Your task to perform on an android device: see creations saved in the google photos Image 0: 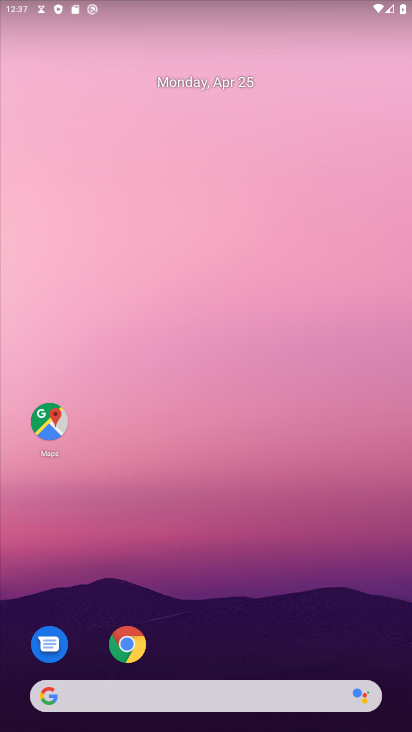
Step 0: drag from (386, 640) to (379, 36)
Your task to perform on an android device: see creations saved in the google photos Image 1: 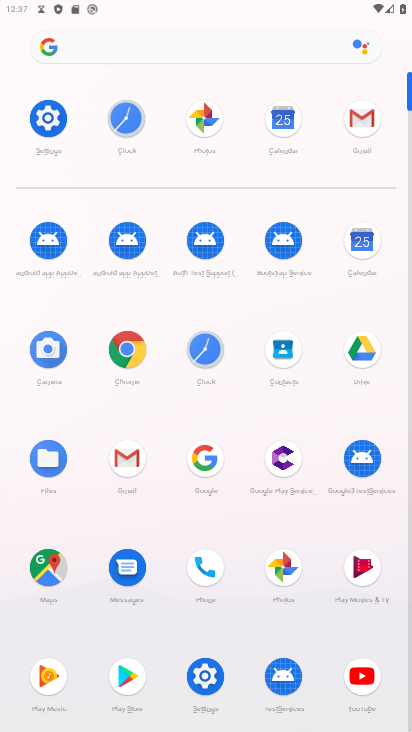
Step 1: click (205, 120)
Your task to perform on an android device: see creations saved in the google photos Image 2: 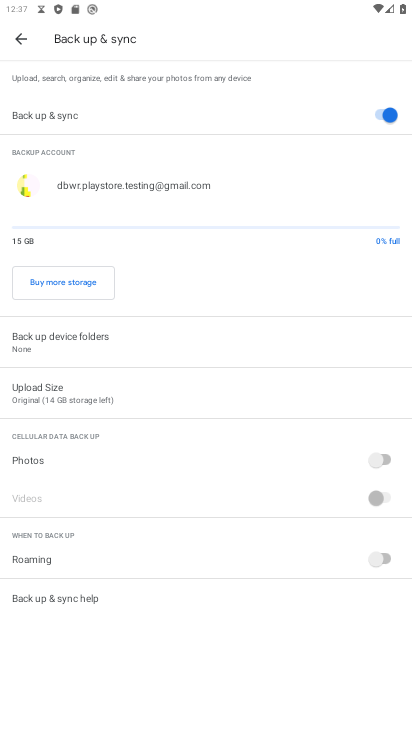
Step 2: click (22, 39)
Your task to perform on an android device: see creations saved in the google photos Image 3: 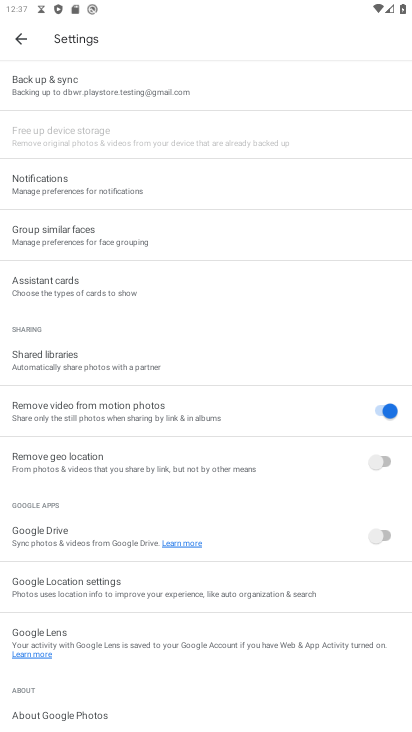
Step 3: click (19, 41)
Your task to perform on an android device: see creations saved in the google photos Image 4: 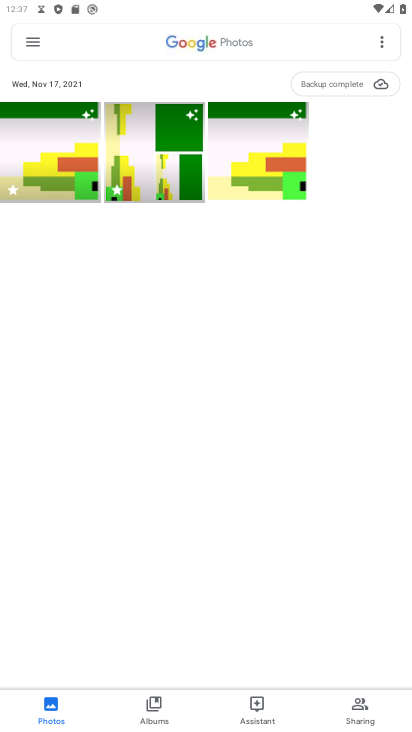
Step 4: click (151, 45)
Your task to perform on an android device: see creations saved in the google photos Image 5: 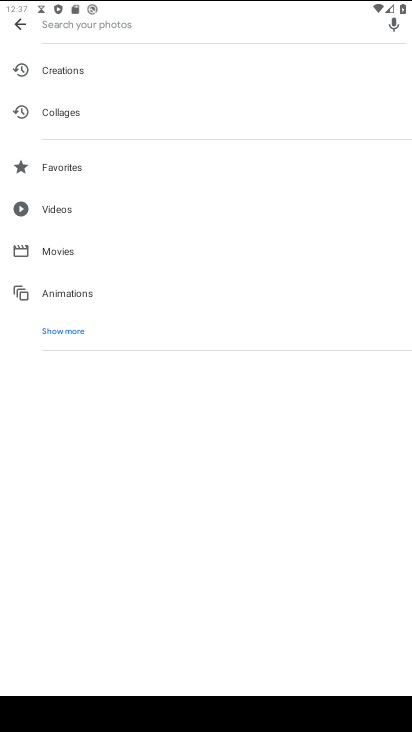
Step 5: click (56, 75)
Your task to perform on an android device: see creations saved in the google photos Image 6: 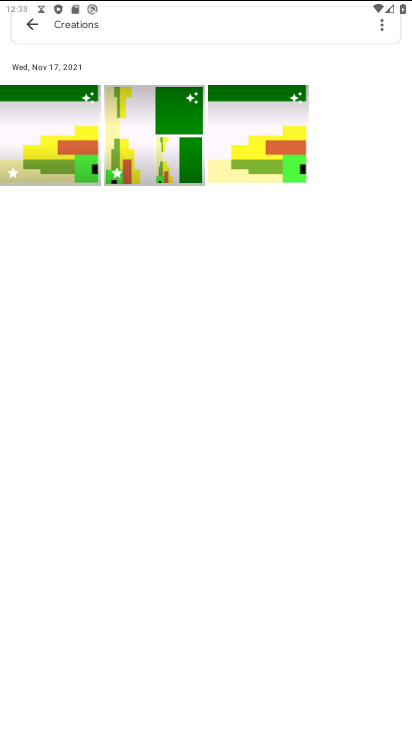
Step 6: task complete